Your task to perform on an android device: turn off airplane mode Image 0: 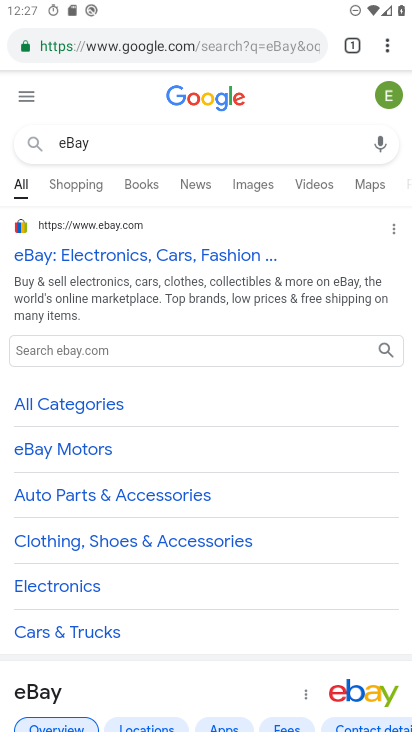
Step 0: press home button
Your task to perform on an android device: turn off airplane mode Image 1: 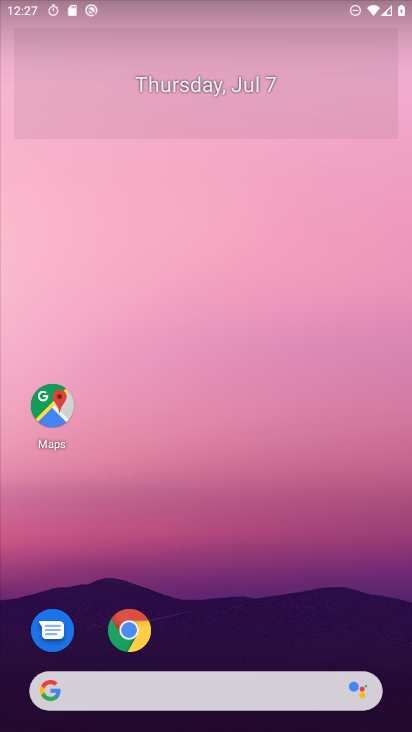
Step 1: drag from (251, 596) to (250, 35)
Your task to perform on an android device: turn off airplane mode Image 2: 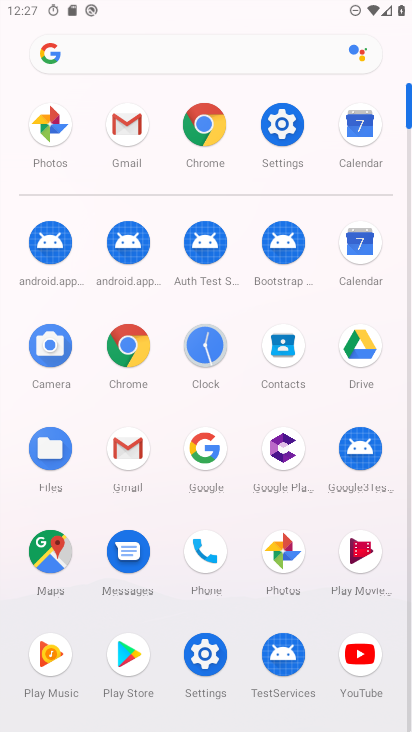
Step 2: click (208, 657)
Your task to perform on an android device: turn off airplane mode Image 3: 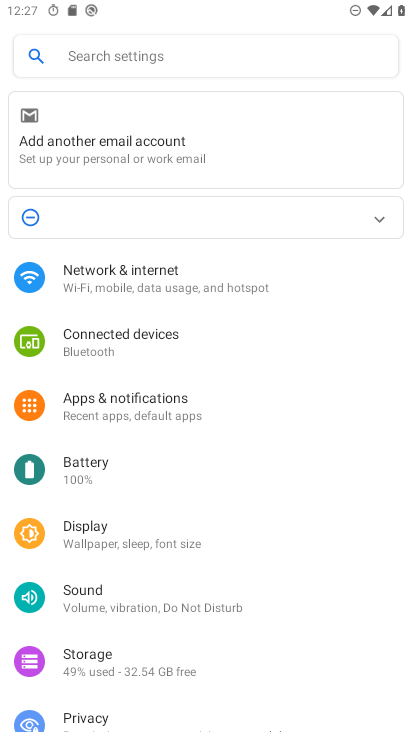
Step 3: click (156, 290)
Your task to perform on an android device: turn off airplane mode Image 4: 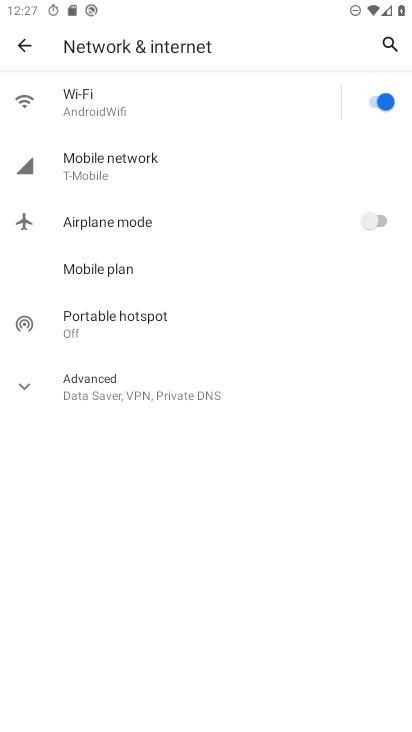
Step 4: task complete